Your task to perform on an android device: Go to eBay Image 0: 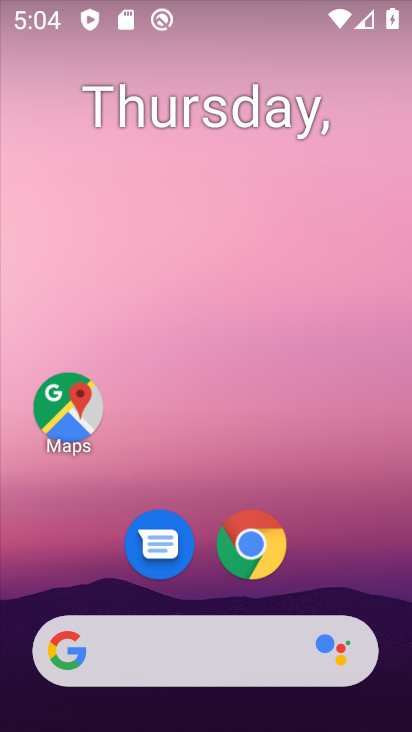
Step 0: click (257, 550)
Your task to perform on an android device: Go to eBay Image 1: 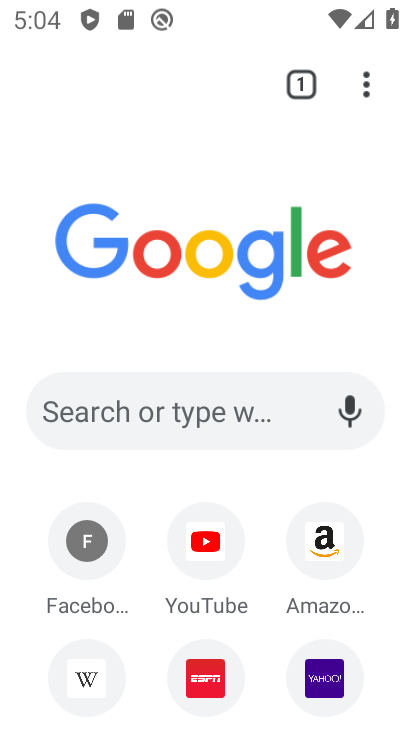
Step 1: click (273, 425)
Your task to perform on an android device: Go to eBay Image 2: 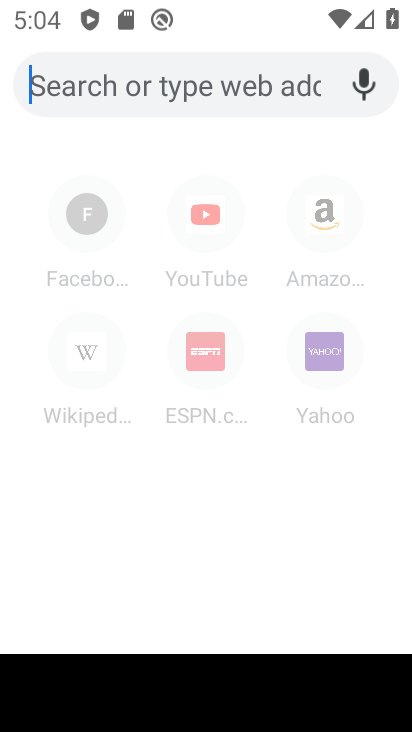
Step 2: type "ebay"
Your task to perform on an android device: Go to eBay Image 3: 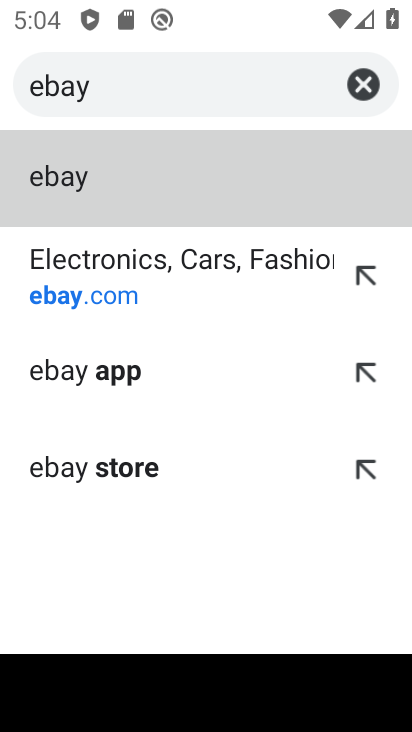
Step 3: click (93, 293)
Your task to perform on an android device: Go to eBay Image 4: 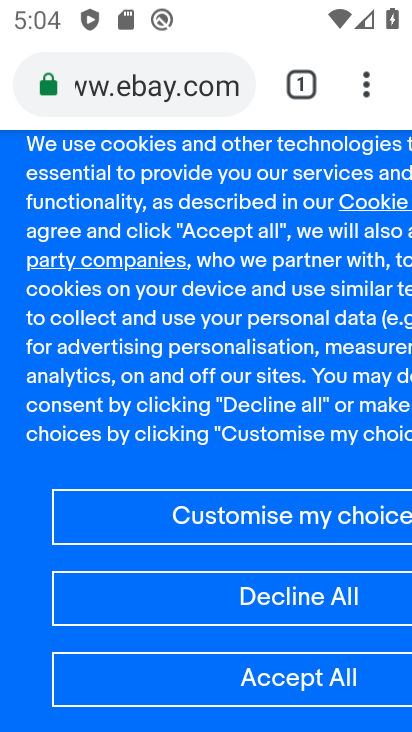
Step 4: task complete